Your task to perform on an android device: allow notifications from all sites in the chrome app Image 0: 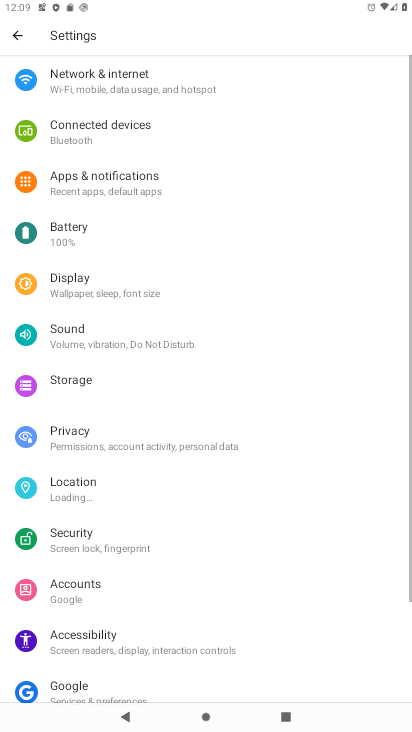
Step 0: press home button
Your task to perform on an android device: allow notifications from all sites in the chrome app Image 1: 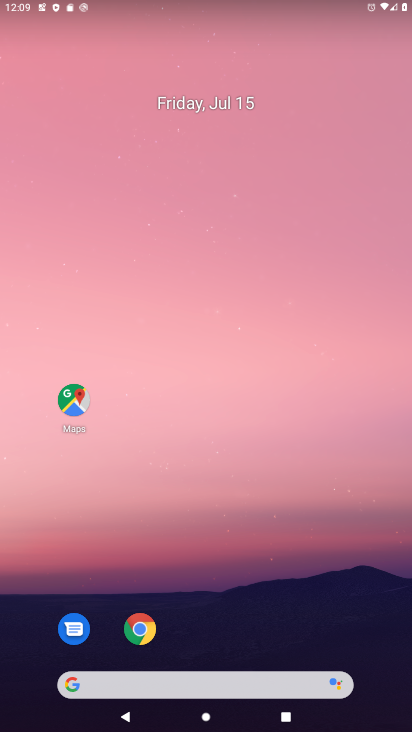
Step 1: drag from (189, 642) to (234, 131)
Your task to perform on an android device: allow notifications from all sites in the chrome app Image 2: 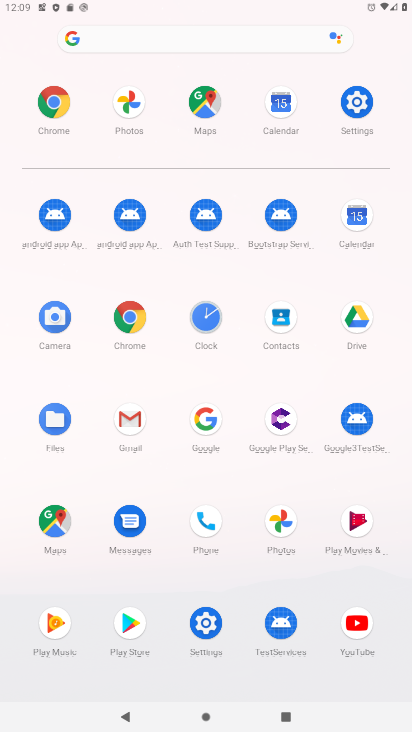
Step 2: click (48, 106)
Your task to perform on an android device: allow notifications from all sites in the chrome app Image 3: 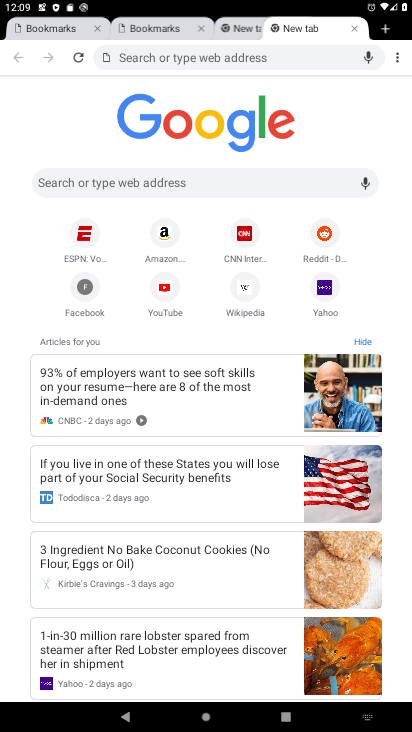
Step 3: drag from (396, 55) to (293, 261)
Your task to perform on an android device: allow notifications from all sites in the chrome app Image 4: 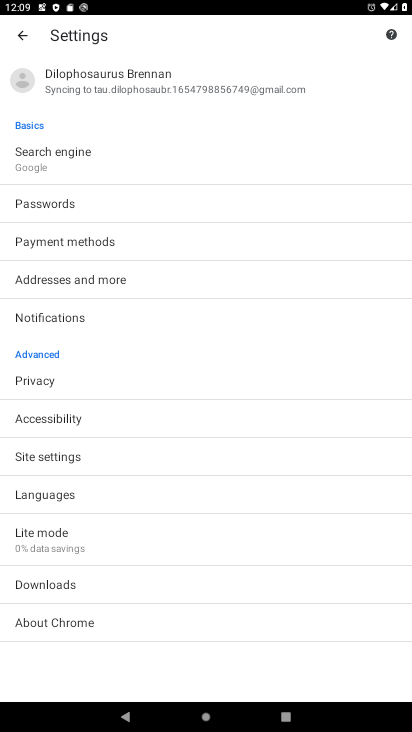
Step 4: click (43, 455)
Your task to perform on an android device: allow notifications from all sites in the chrome app Image 5: 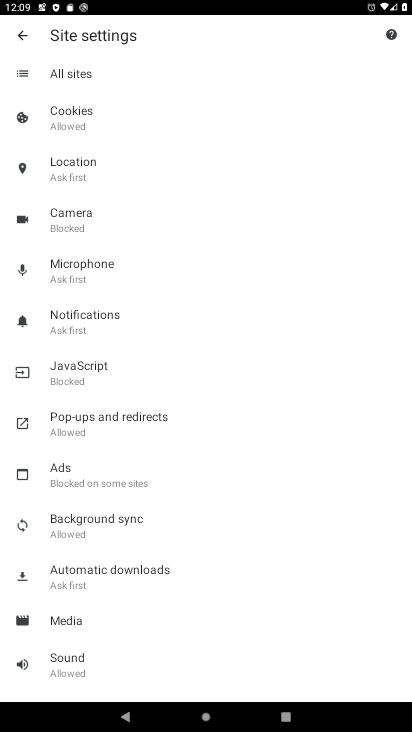
Step 5: click (90, 314)
Your task to perform on an android device: allow notifications from all sites in the chrome app Image 6: 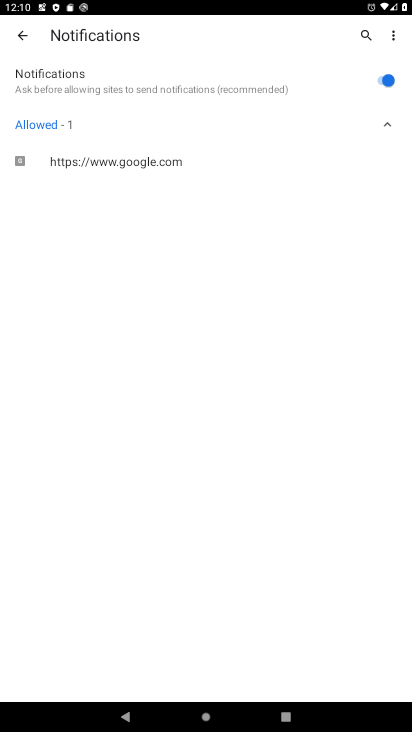
Step 6: task complete